Your task to perform on an android device: Search for Italian restaurants on Maps Image 0: 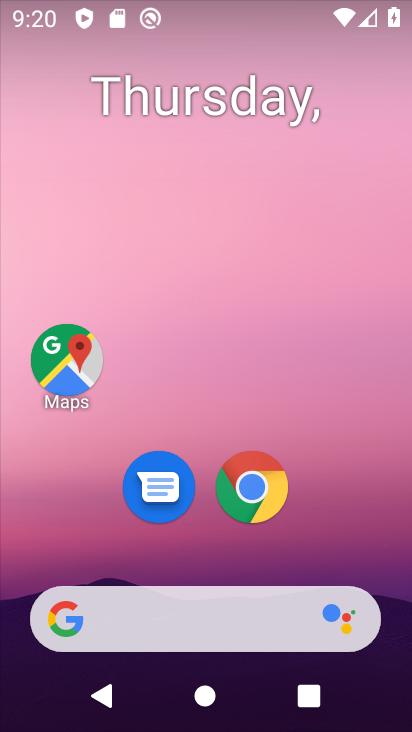
Step 0: click (84, 378)
Your task to perform on an android device: Search for Italian restaurants on Maps Image 1: 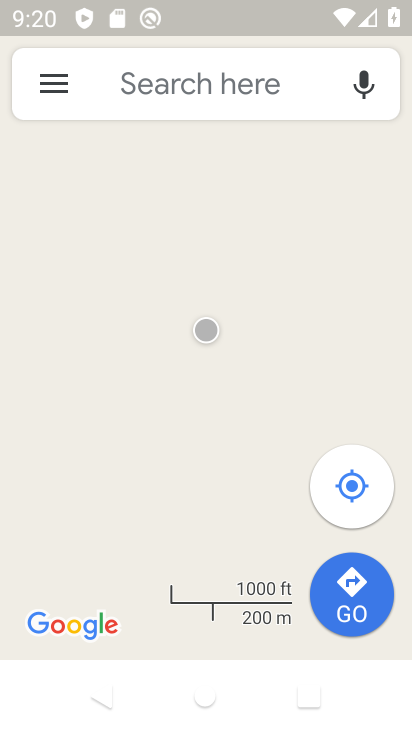
Step 1: click (205, 82)
Your task to perform on an android device: Search for Italian restaurants on Maps Image 2: 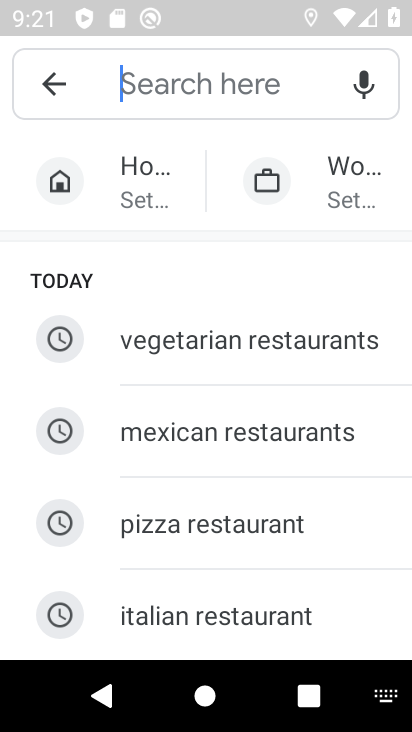
Step 2: click (190, 613)
Your task to perform on an android device: Search for Italian restaurants on Maps Image 3: 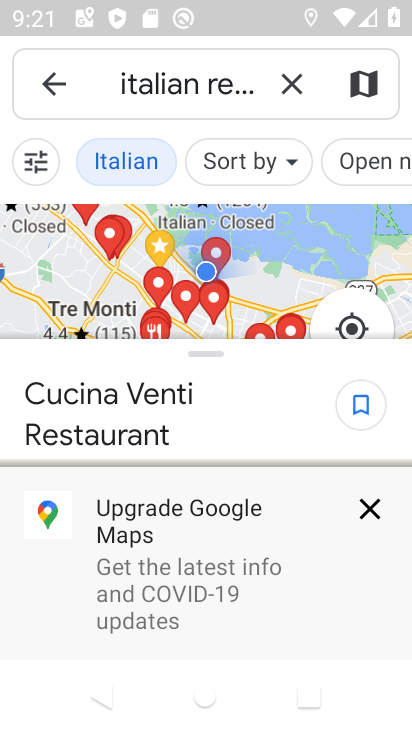
Step 3: click (373, 506)
Your task to perform on an android device: Search for Italian restaurants on Maps Image 4: 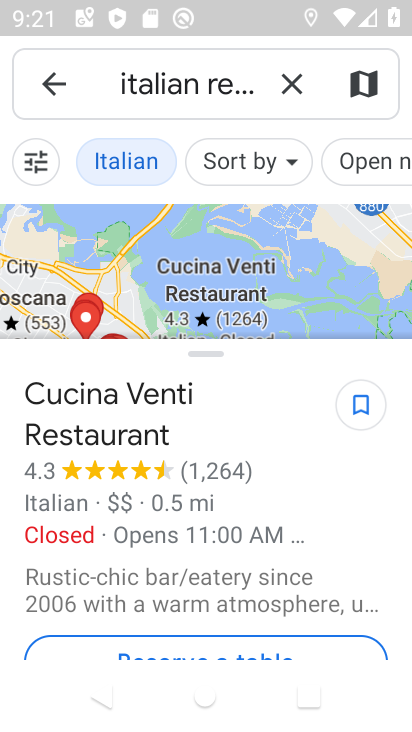
Step 4: task complete